Your task to perform on an android device: install app "Speedtest by Ookla" Image 0: 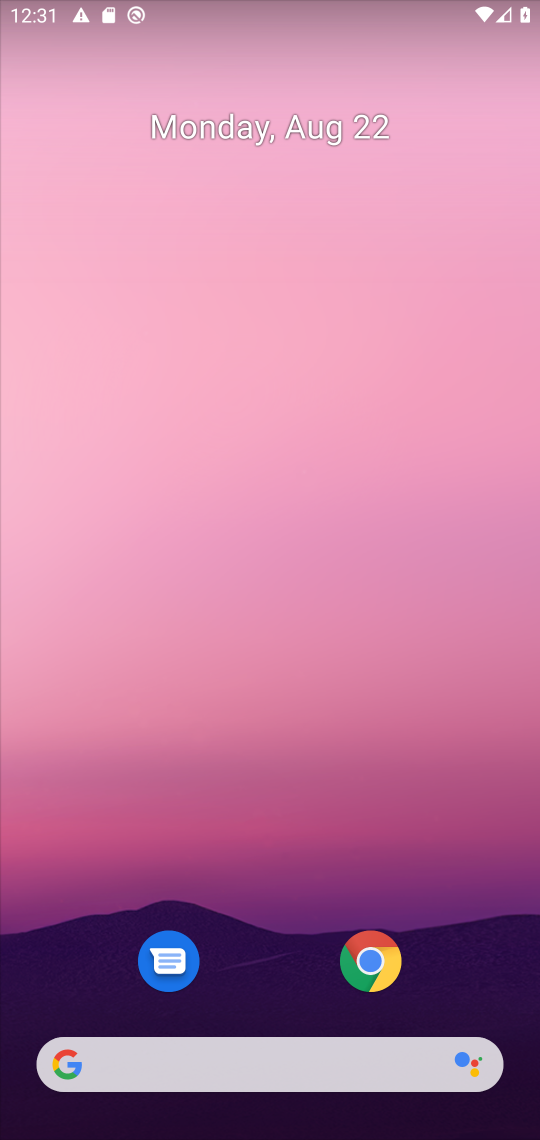
Step 0: press home button
Your task to perform on an android device: install app "Speedtest by Ookla" Image 1: 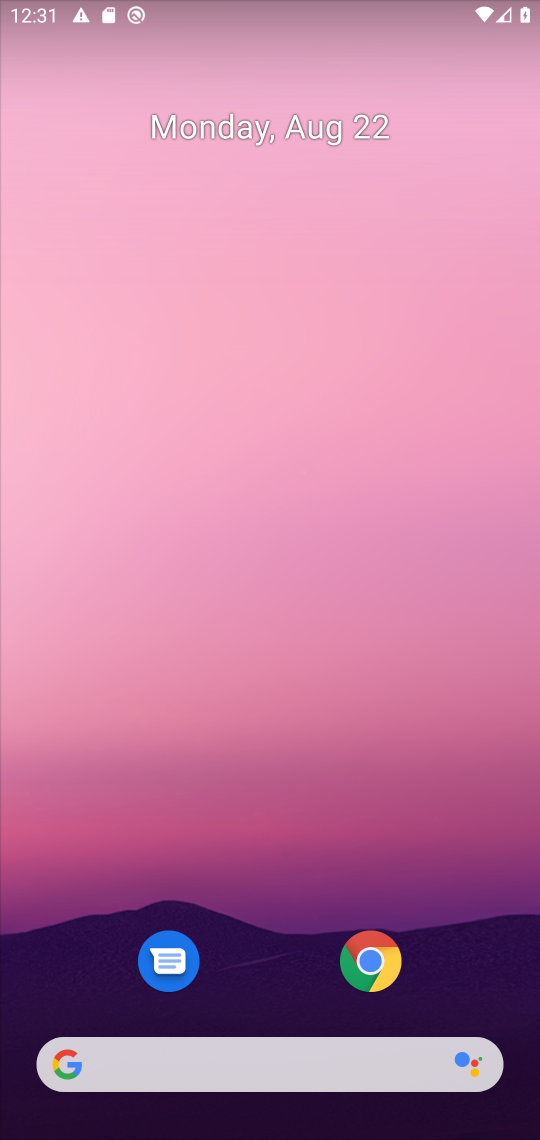
Step 1: drag from (456, 952) to (500, 109)
Your task to perform on an android device: install app "Speedtest by Ookla" Image 2: 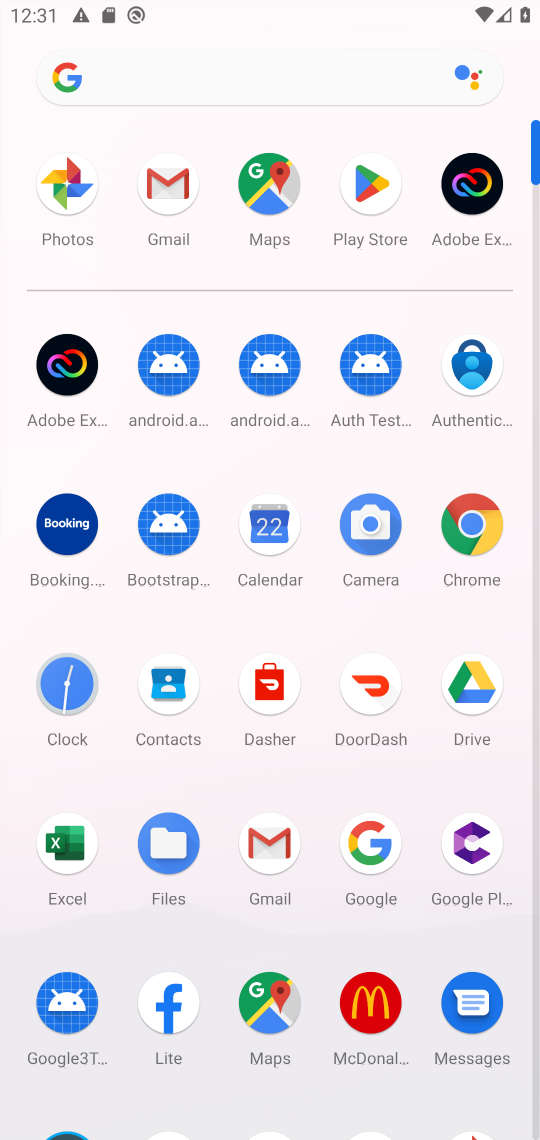
Step 2: click (364, 199)
Your task to perform on an android device: install app "Speedtest by Ookla" Image 3: 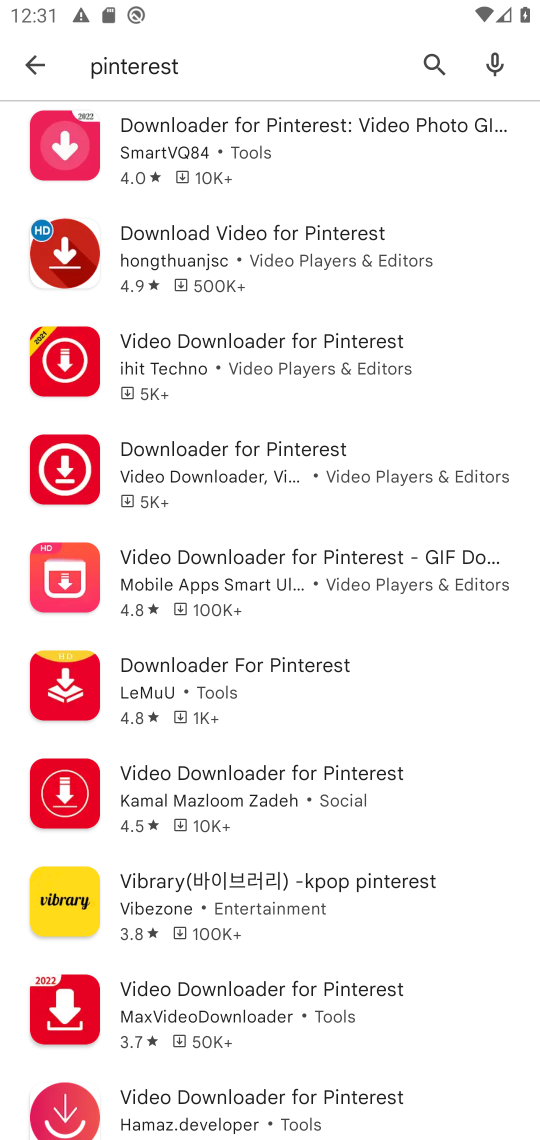
Step 3: press back button
Your task to perform on an android device: install app "Speedtest by Ookla" Image 4: 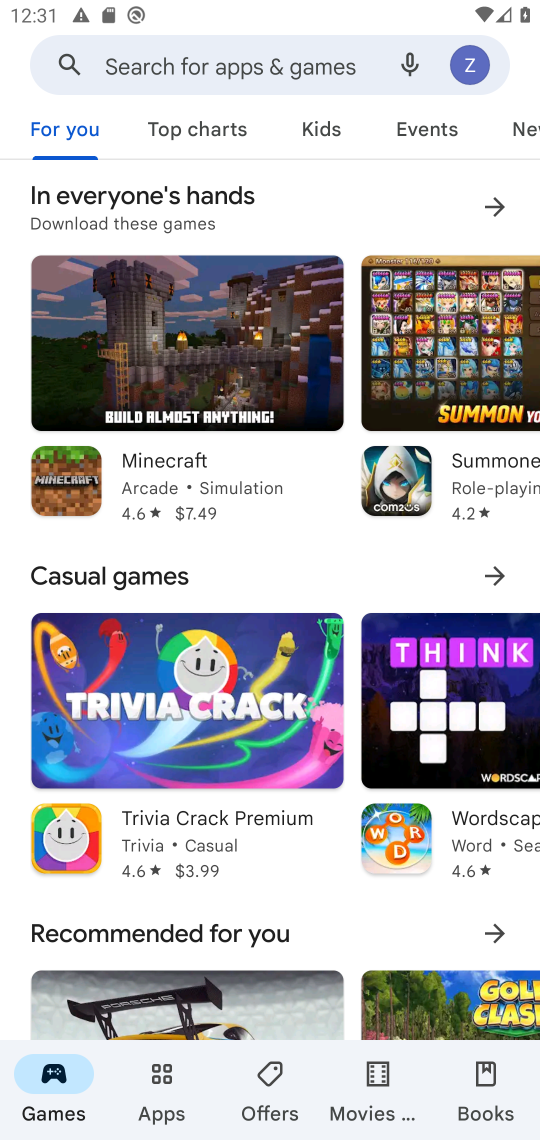
Step 4: click (266, 51)
Your task to perform on an android device: install app "Speedtest by Ookla" Image 5: 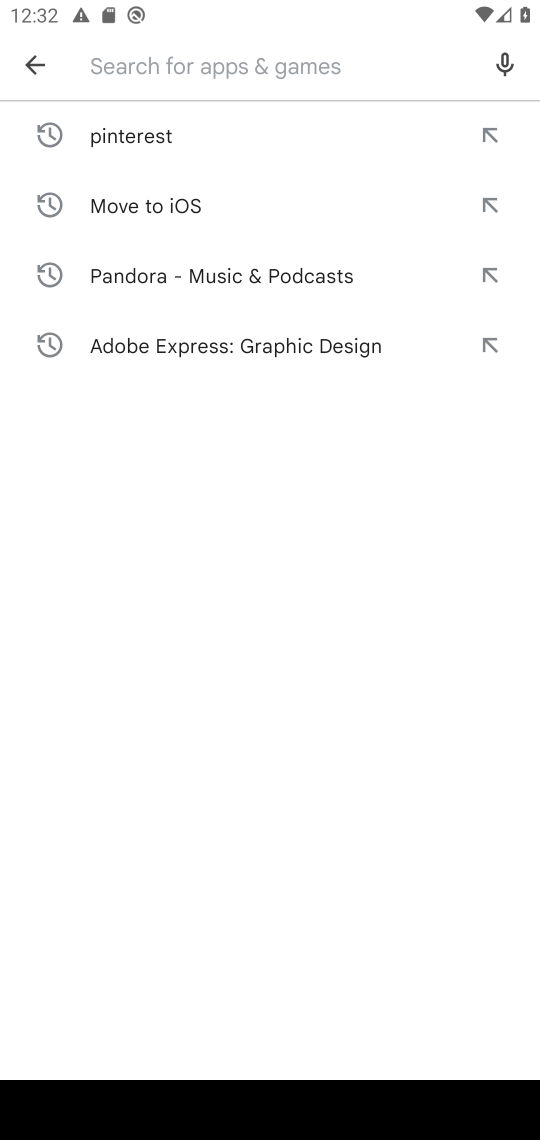
Step 5: type "Speedtest by Ookla"
Your task to perform on an android device: install app "Speedtest by Ookla" Image 6: 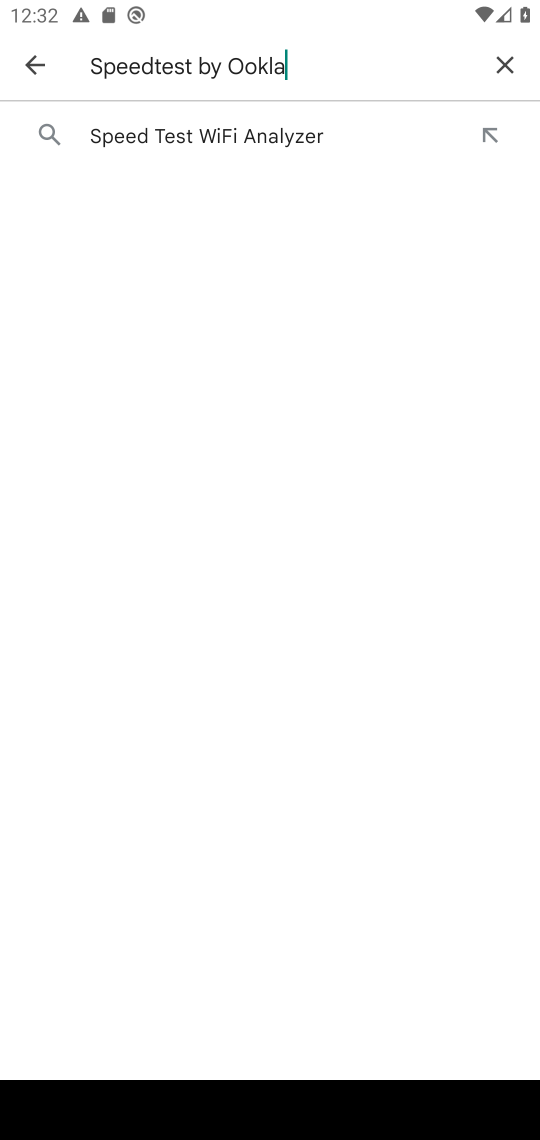
Step 6: press enter
Your task to perform on an android device: install app "Speedtest by Ookla" Image 7: 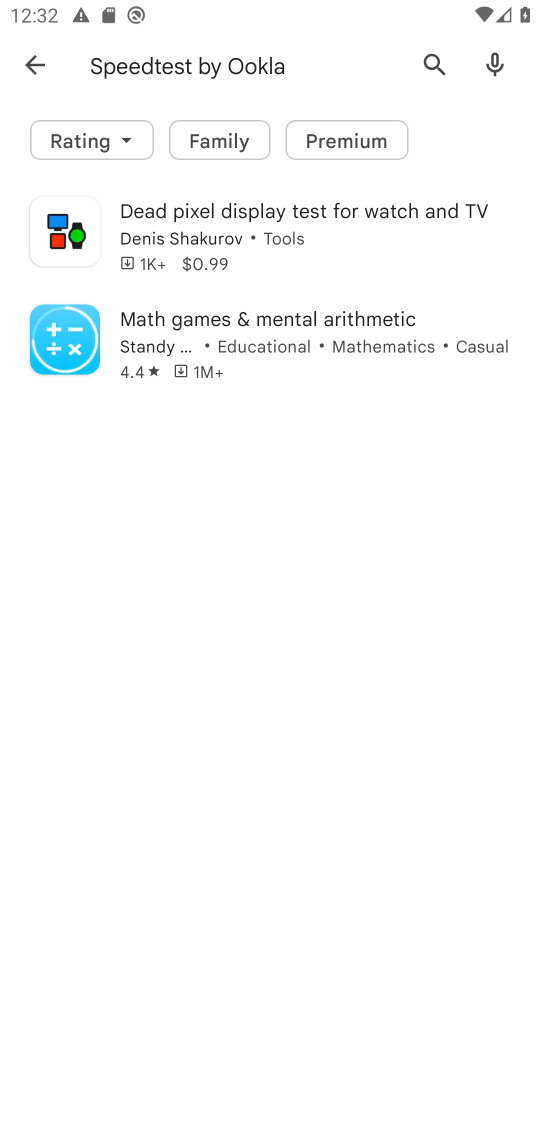
Step 7: task complete